Your task to perform on an android device: manage bookmarks in the chrome app Image 0: 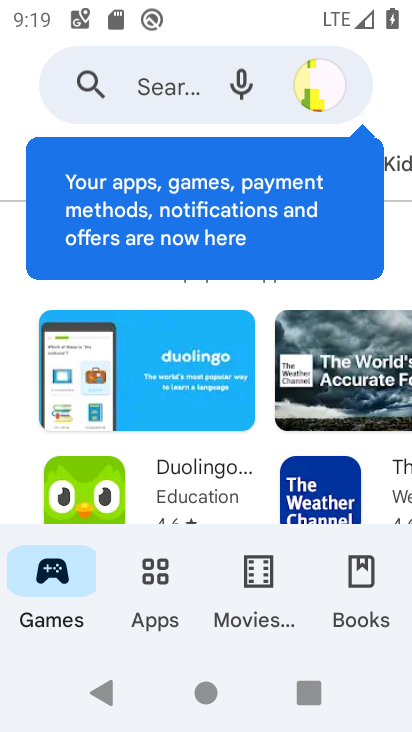
Step 0: press home button
Your task to perform on an android device: manage bookmarks in the chrome app Image 1: 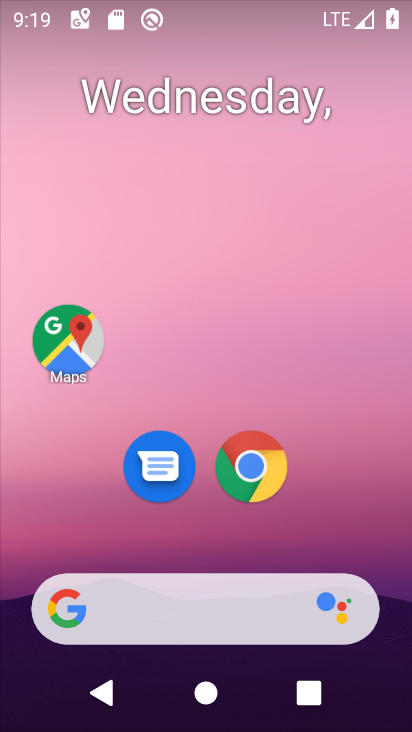
Step 1: click (254, 463)
Your task to perform on an android device: manage bookmarks in the chrome app Image 2: 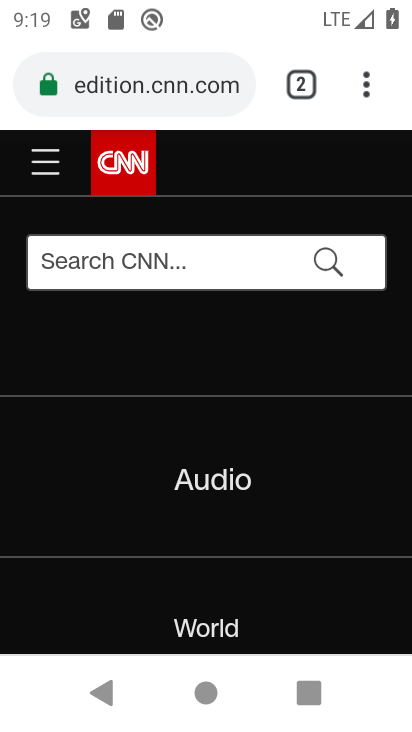
Step 2: click (366, 92)
Your task to perform on an android device: manage bookmarks in the chrome app Image 3: 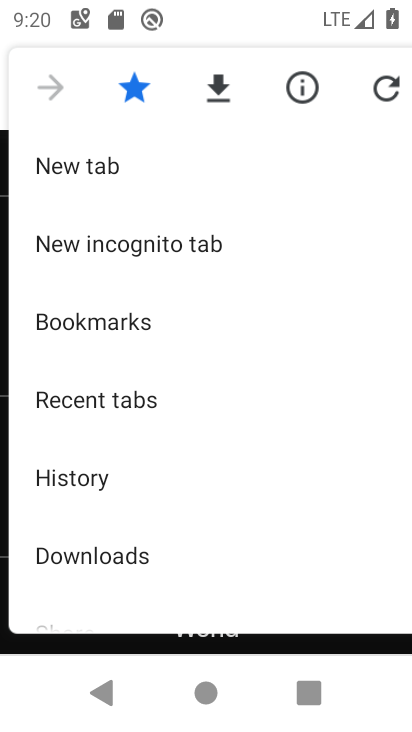
Step 3: click (80, 324)
Your task to perform on an android device: manage bookmarks in the chrome app Image 4: 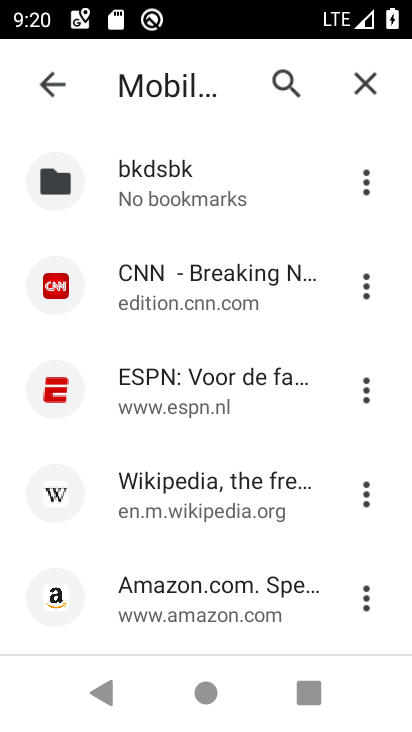
Step 4: click (366, 189)
Your task to perform on an android device: manage bookmarks in the chrome app Image 5: 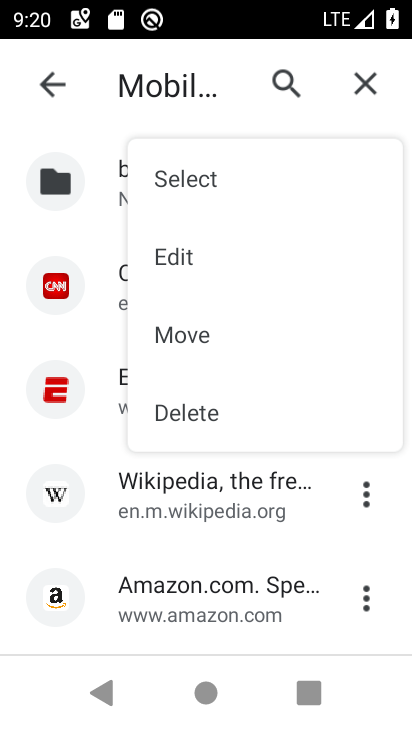
Step 5: click (189, 259)
Your task to perform on an android device: manage bookmarks in the chrome app Image 6: 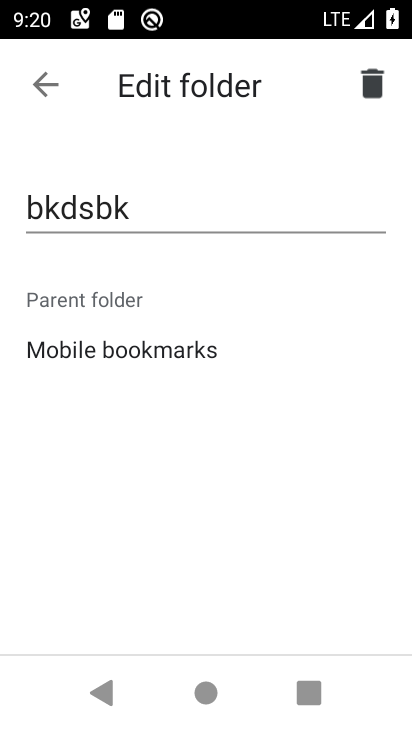
Step 6: click (123, 211)
Your task to perform on an android device: manage bookmarks in the chrome app Image 7: 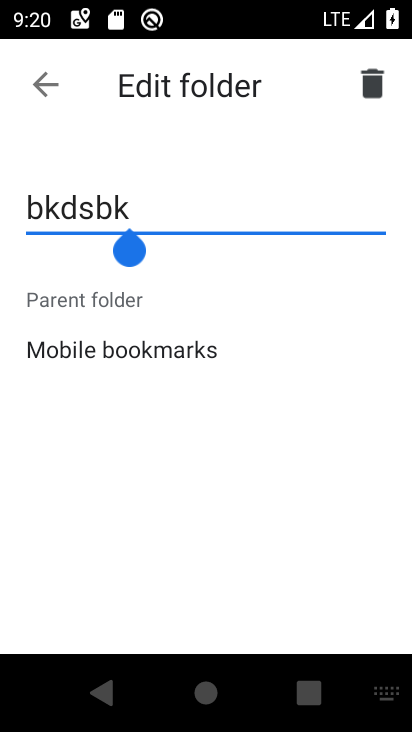
Step 7: click (74, 209)
Your task to perform on an android device: manage bookmarks in the chrome app Image 8: 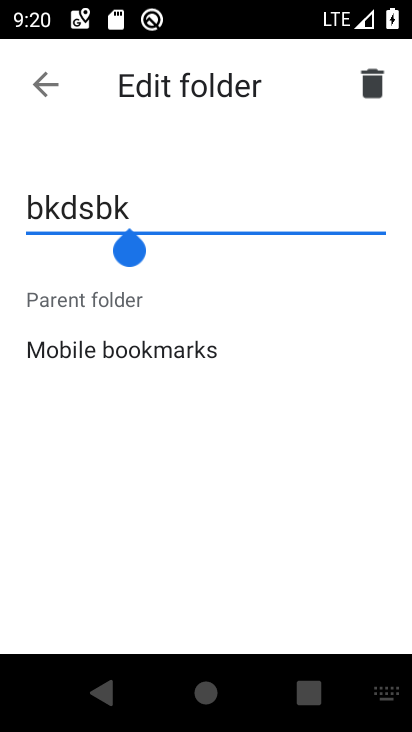
Step 8: click (73, 208)
Your task to perform on an android device: manage bookmarks in the chrome app Image 9: 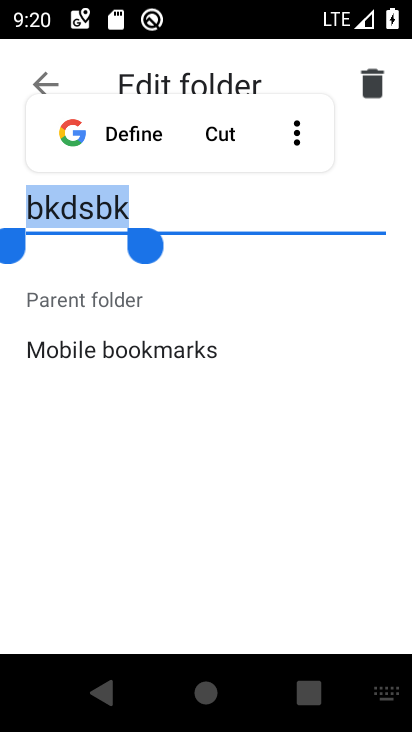
Step 9: click (216, 131)
Your task to perform on an android device: manage bookmarks in the chrome app Image 10: 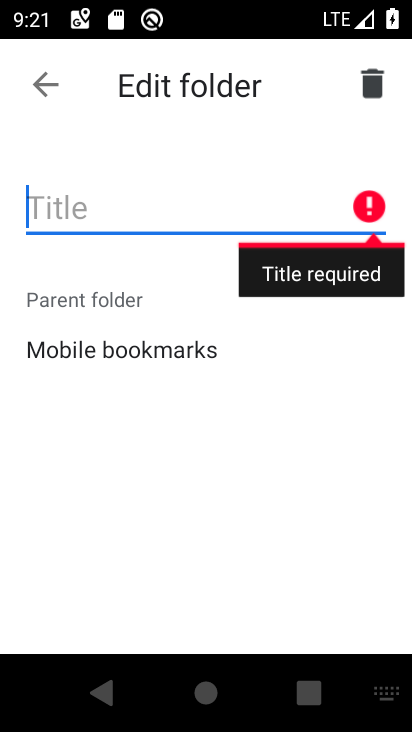
Step 10: type "news"
Your task to perform on an android device: manage bookmarks in the chrome app Image 11: 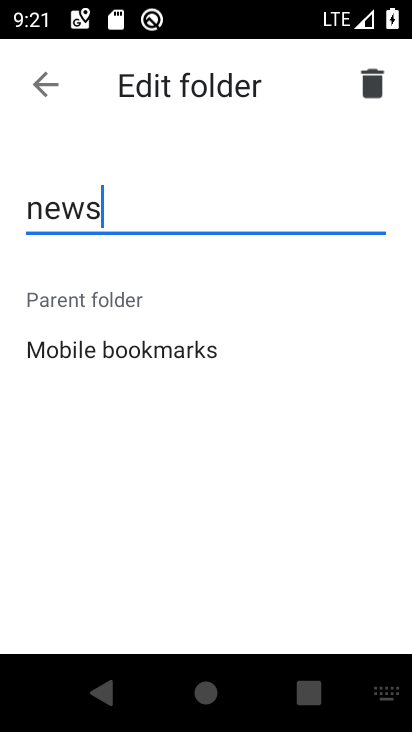
Step 11: click (168, 417)
Your task to perform on an android device: manage bookmarks in the chrome app Image 12: 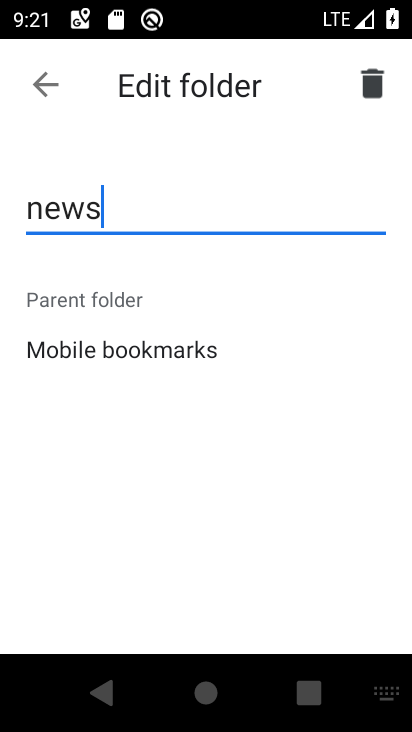
Step 12: click (45, 81)
Your task to perform on an android device: manage bookmarks in the chrome app Image 13: 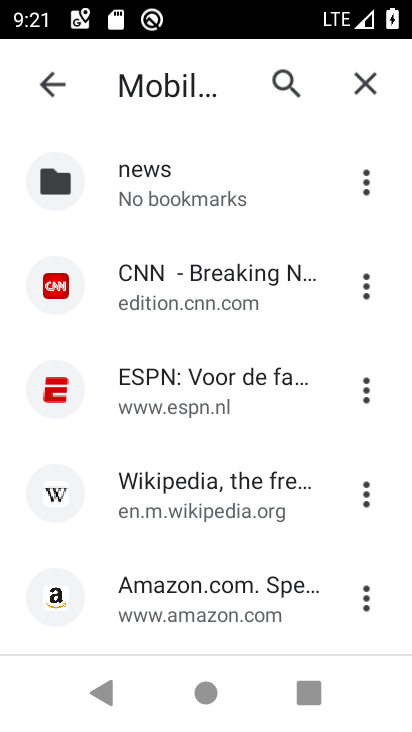
Step 13: task complete